Your task to perform on an android device: Go to notification settings Image 0: 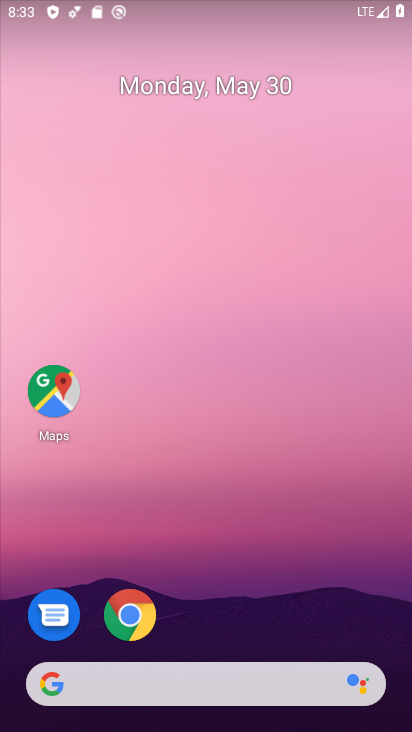
Step 0: drag from (125, 721) to (151, 36)
Your task to perform on an android device: Go to notification settings Image 1: 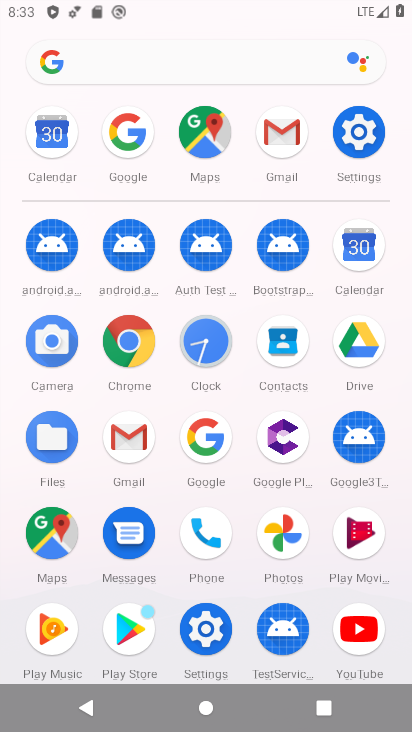
Step 1: click (365, 144)
Your task to perform on an android device: Go to notification settings Image 2: 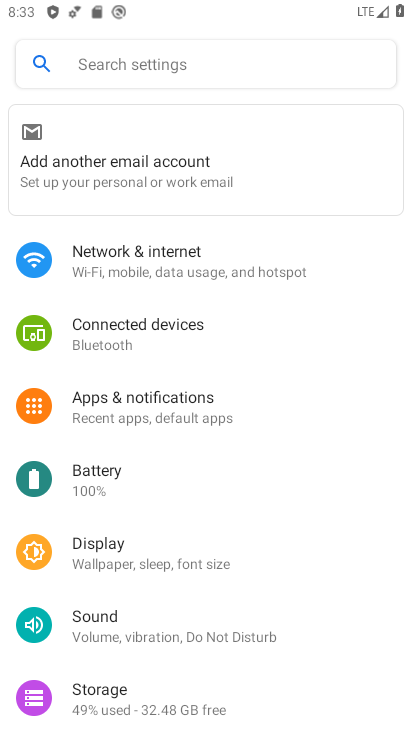
Step 2: click (175, 415)
Your task to perform on an android device: Go to notification settings Image 3: 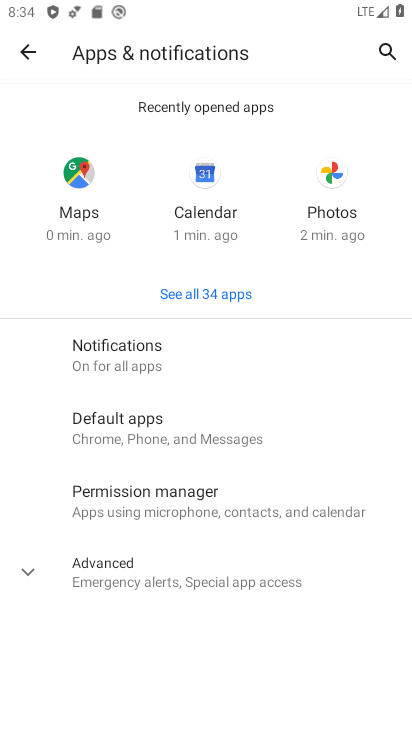
Step 3: task complete